Your task to perform on an android device: Open Android settings Image 0: 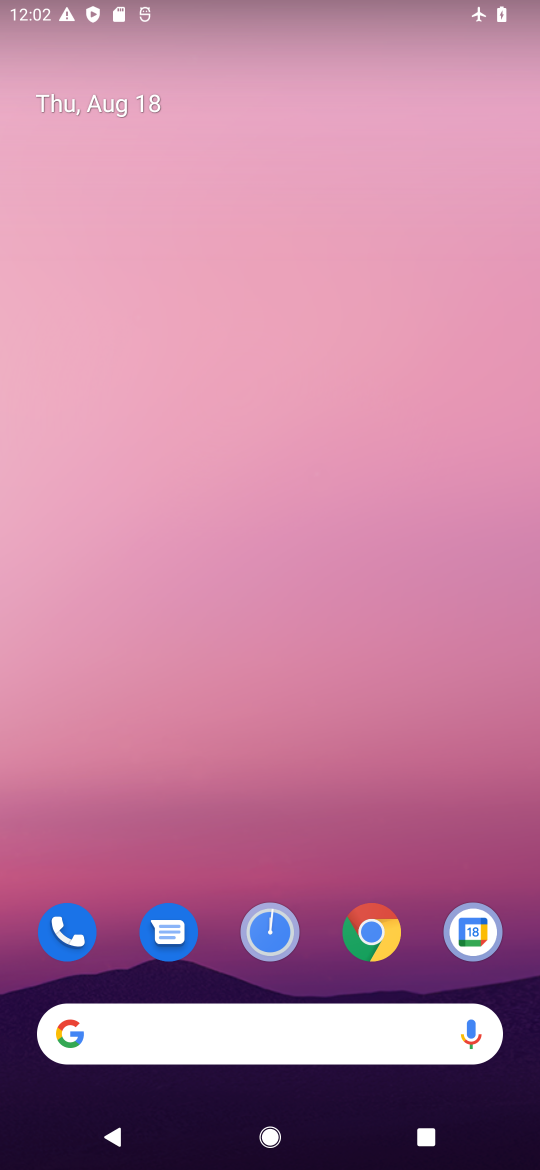
Step 0: drag from (217, 976) to (196, 305)
Your task to perform on an android device: Open Android settings Image 1: 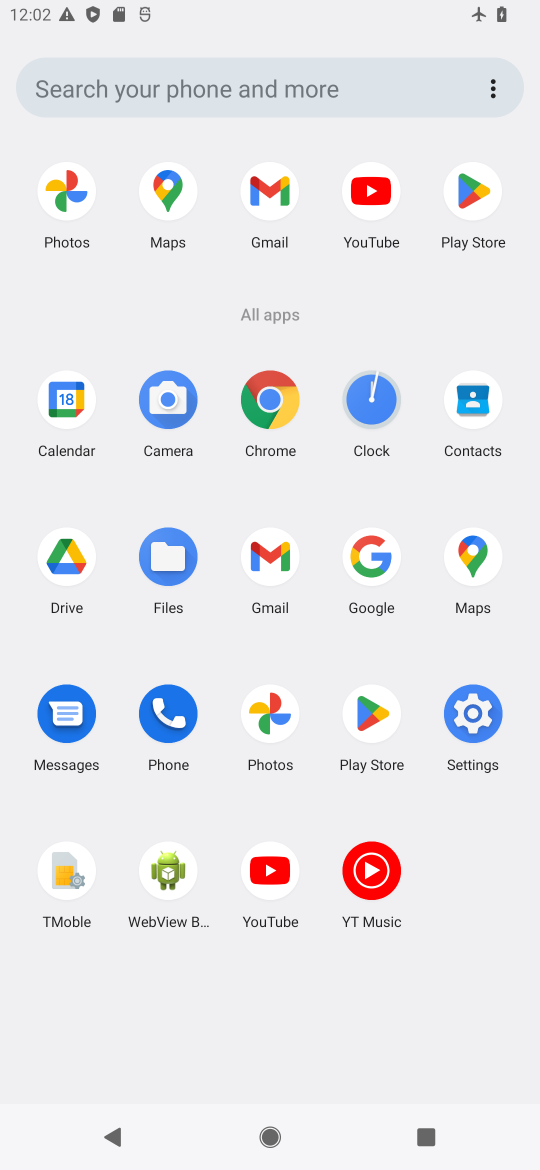
Step 1: click (472, 706)
Your task to perform on an android device: Open Android settings Image 2: 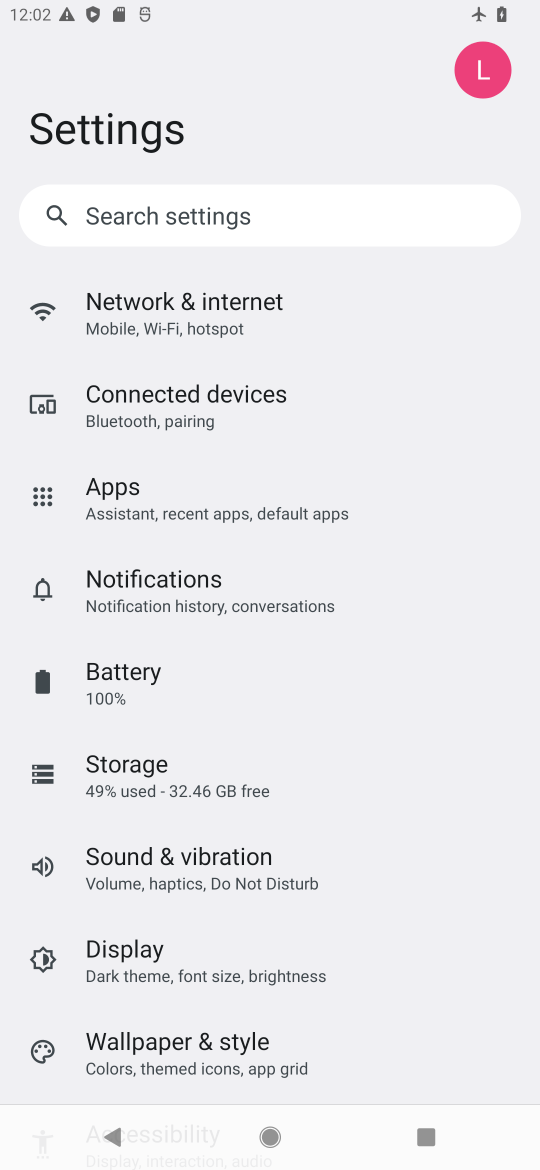
Step 2: task complete